Your task to perform on an android device: Search for pizza restaurants on Maps Image 0: 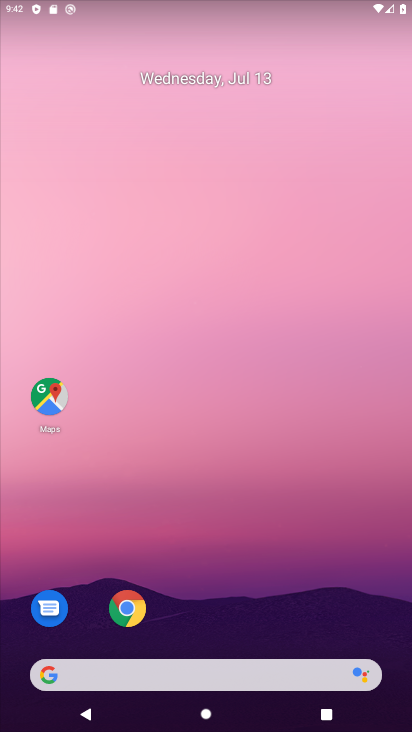
Step 0: click (51, 400)
Your task to perform on an android device: Search for pizza restaurants on Maps Image 1: 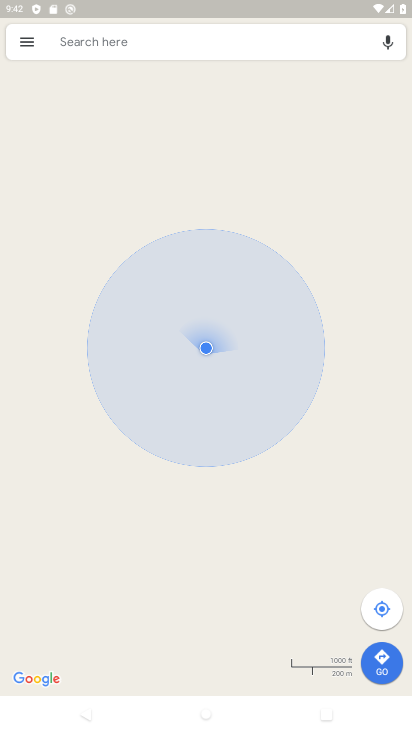
Step 1: click (231, 47)
Your task to perform on an android device: Search for pizza restaurants on Maps Image 2: 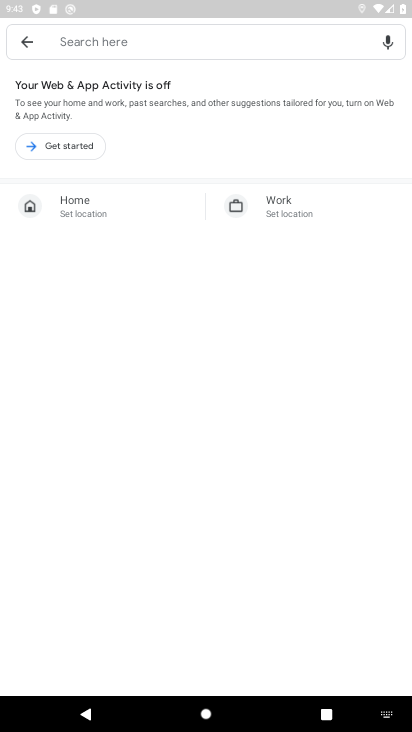
Step 2: type "Pizza restaurants"
Your task to perform on an android device: Search for pizza restaurants on Maps Image 3: 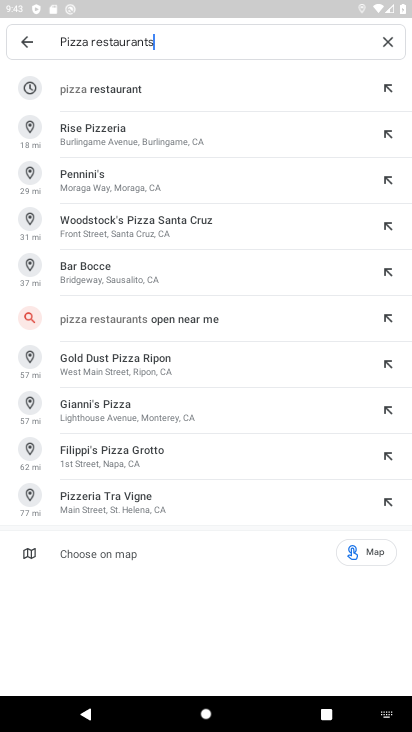
Step 3: click (148, 82)
Your task to perform on an android device: Search for pizza restaurants on Maps Image 4: 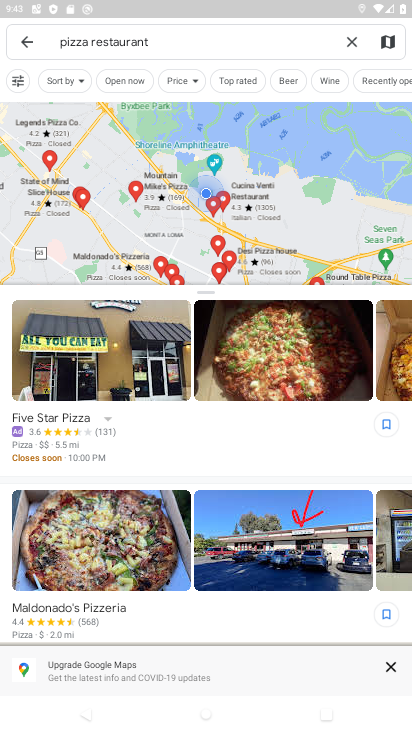
Step 4: task complete